Your task to perform on an android device: toggle wifi Image 0: 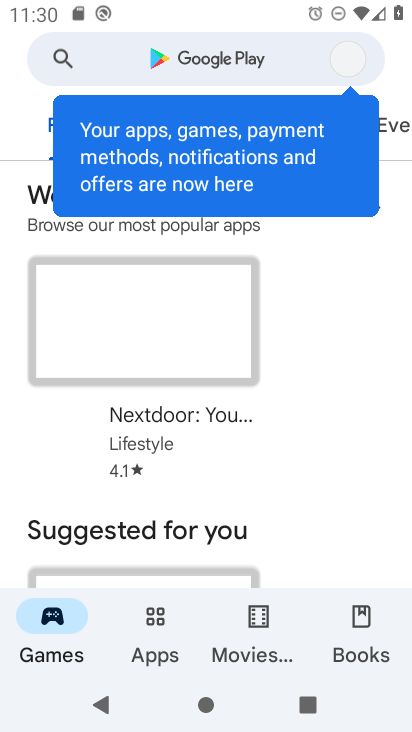
Step 0: press back button
Your task to perform on an android device: toggle wifi Image 1: 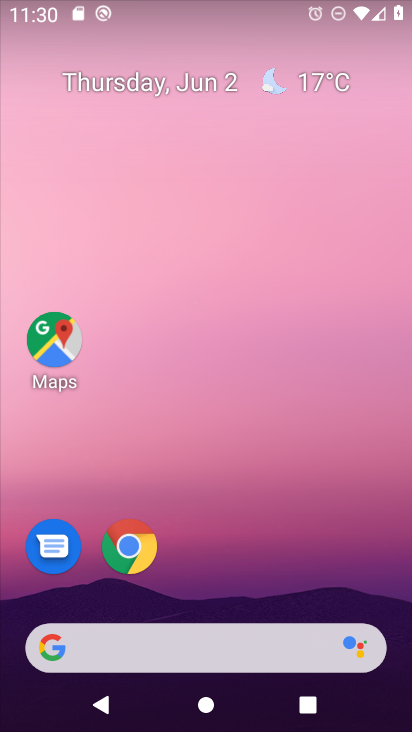
Step 1: drag from (227, 529) to (267, 17)
Your task to perform on an android device: toggle wifi Image 2: 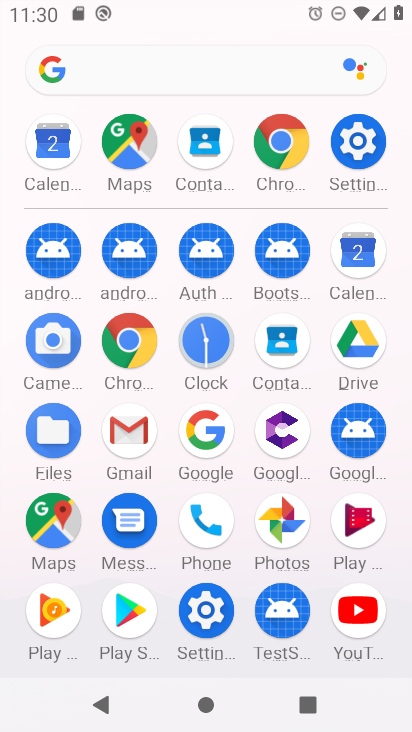
Step 2: click (205, 612)
Your task to perform on an android device: toggle wifi Image 3: 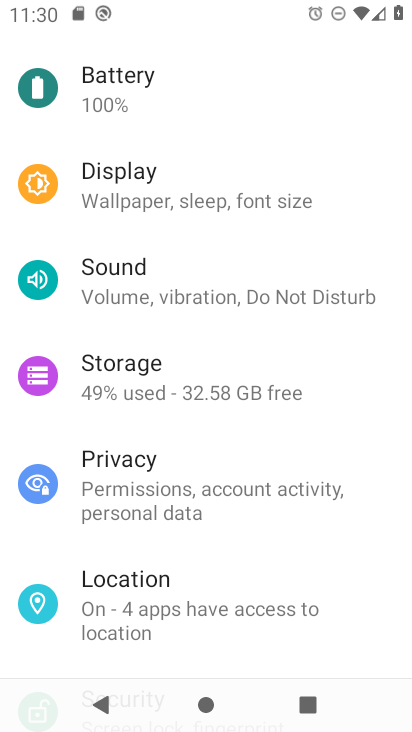
Step 3: drag from (233, 124) to (234, 617)
Your task to perform on an android device: toggle wifi Image 4: 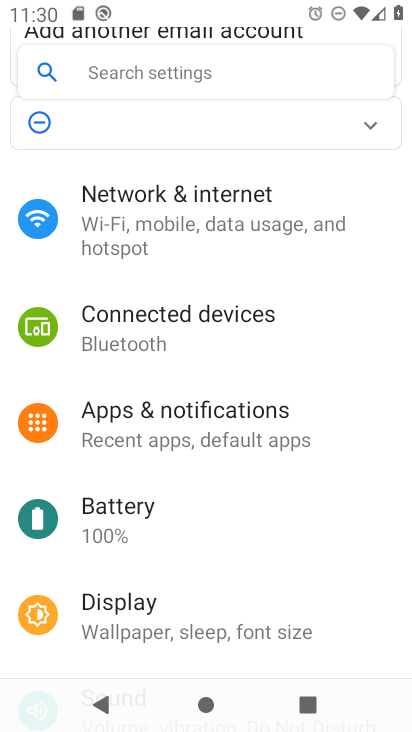
Step 4: drag from (244, 232) to (240, 609)
Your task to perform on an android device: toggle wifi Image 5: 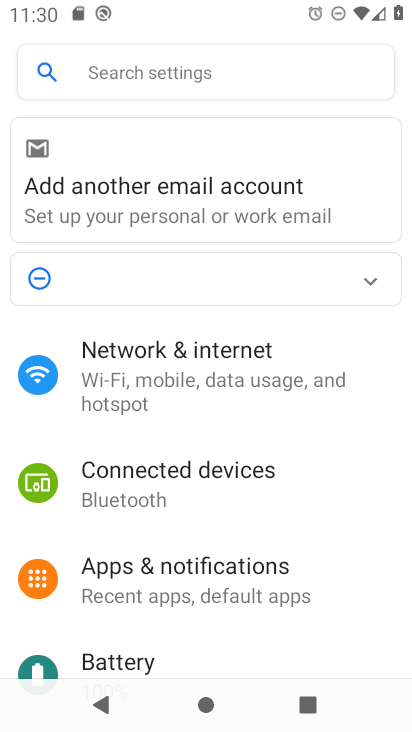
Step 5: click (145, 373)
Your task to perform on an android device: toggle wifi Image 6: 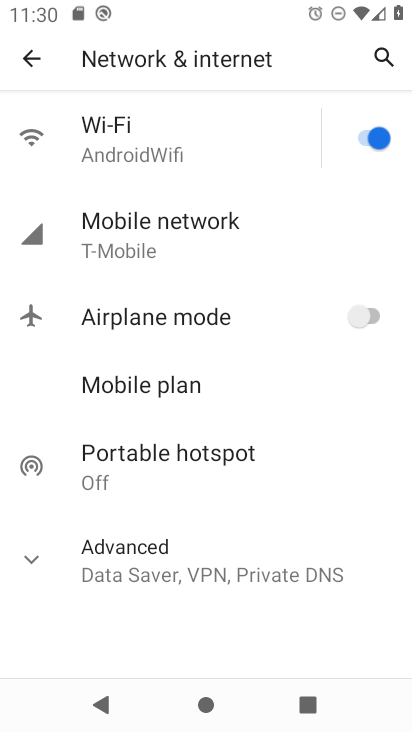
Step 6: click (381, 140)
Your task to perform on an android device: toggle wifi Image 7: 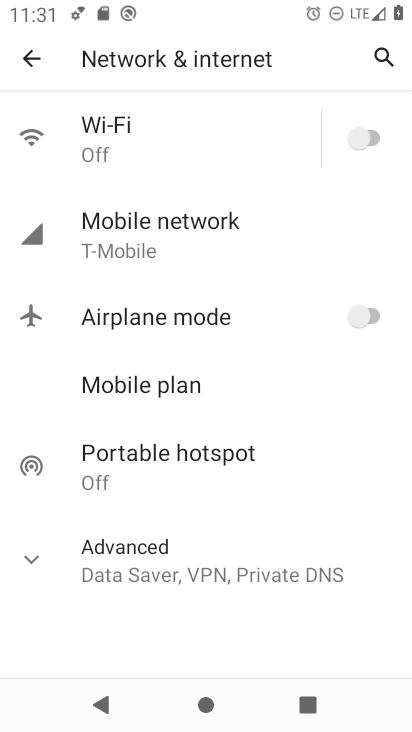
Step 7: click (37, 543)
Your task to perform on an android device: toggle wifi Image 8: 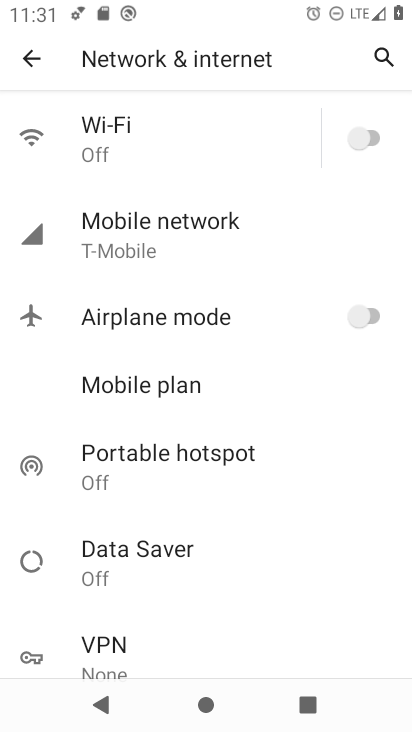
Step 8: task complete